Your task to perform on an android device: toggle airplane mode Image 0: 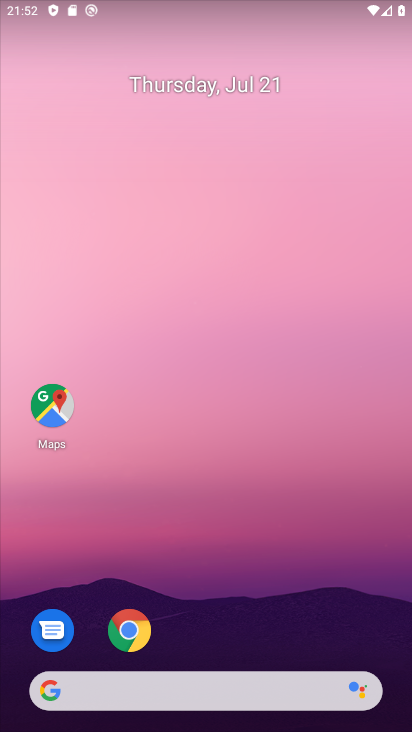
Step 0: drag from (201, 660) to (73, 76)
Your task to perform on an android device: toggle airplane mode Image 1: 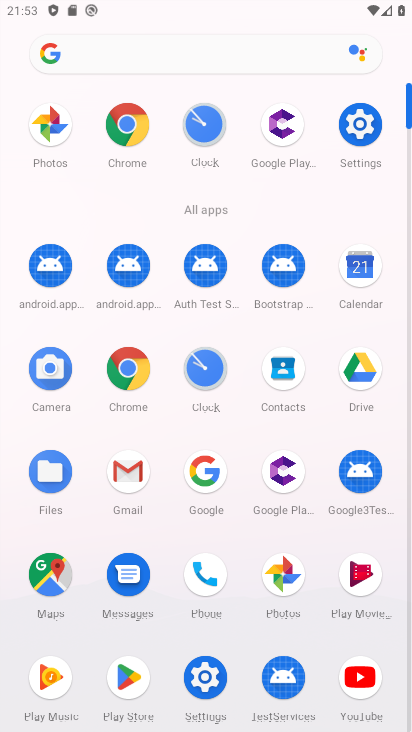
Step 1: click (346, 125)
Your task to perform on an android device: toggle airplane mode Image 2: 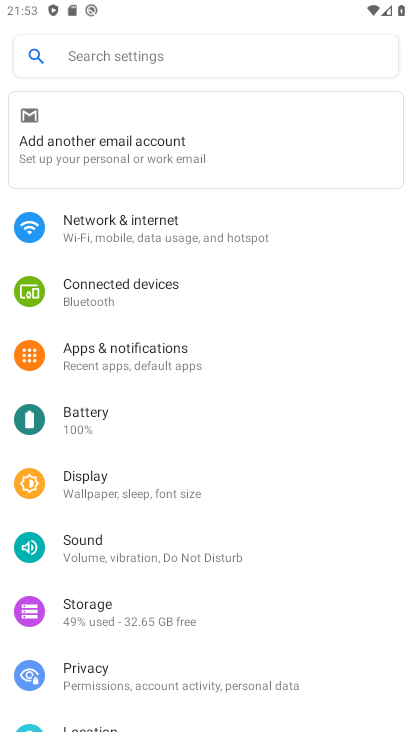
Step 2: click (142, 221)
Your task to perform on an android device: toggle airplane mode Image 3: 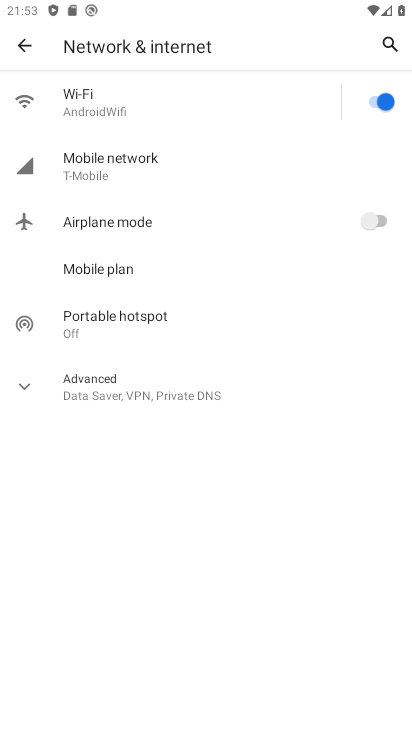
Step 3: click (368, 224)
Your task to perform on an android device: toggle airplane mode Image 4: 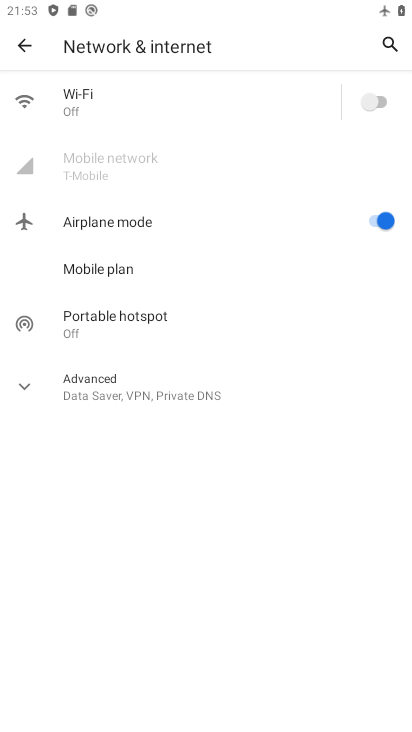
Step 4: click (384, 225)
Your task to perform on an android device: toggle airplane mode Image 5: 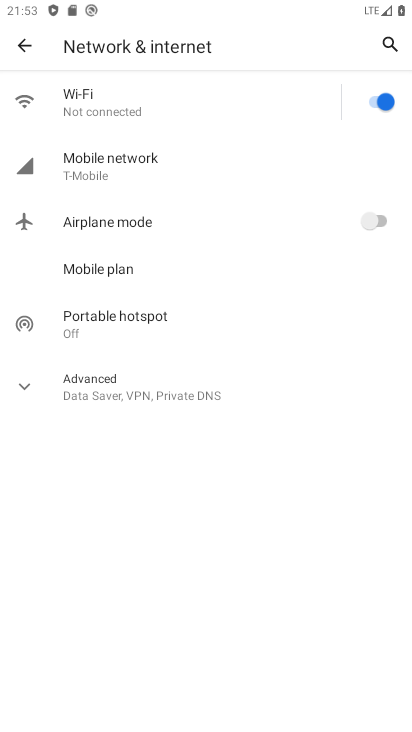
Step 5: task complete